Your task to perform on an android device: search for starred emails in the gmail app Image 0: 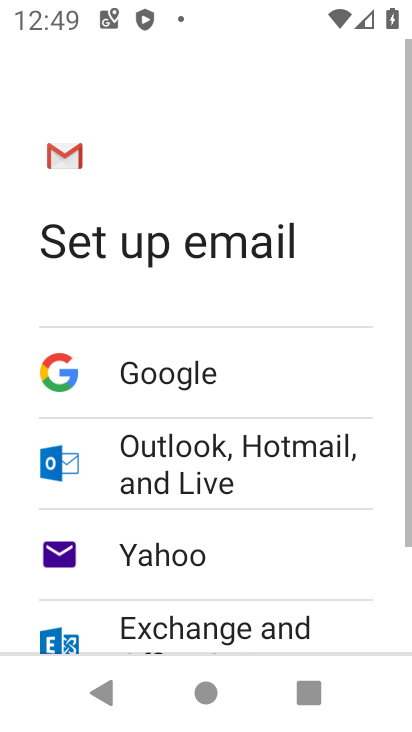
Step 0: press home button
Your task to perform on an android device: search for starred emails in the gmail app Image 1: 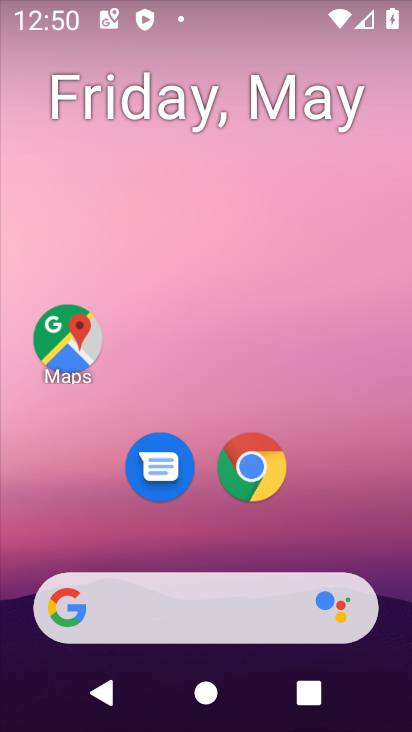
Step 1: click (163, 487)
Your task to perform on an android device: search for starred emails in the gmail app Image 2: 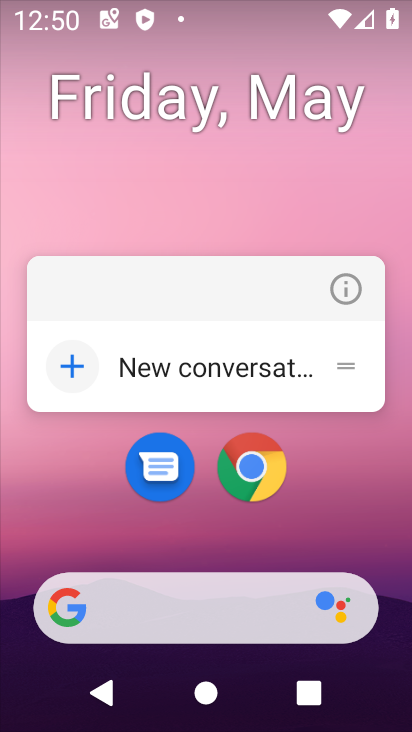
Step 2: click (359, 549)
Your task to perform on an android device: search for starred emails in the gmail app Image 3: 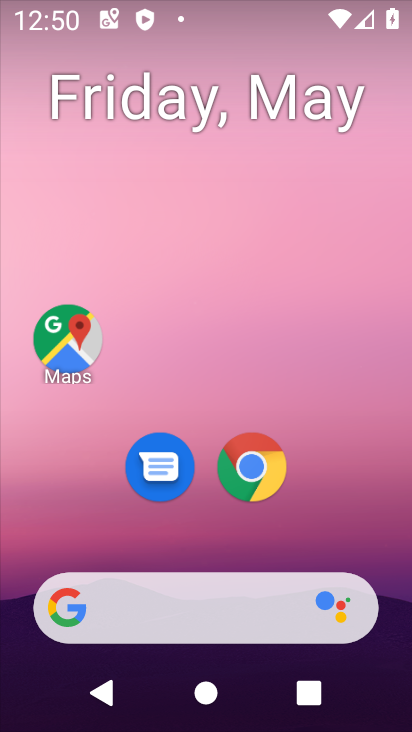
Step 3: click (279, 500)
Your task to perform on an android device: search for starred emails in the gmail app Image 4: 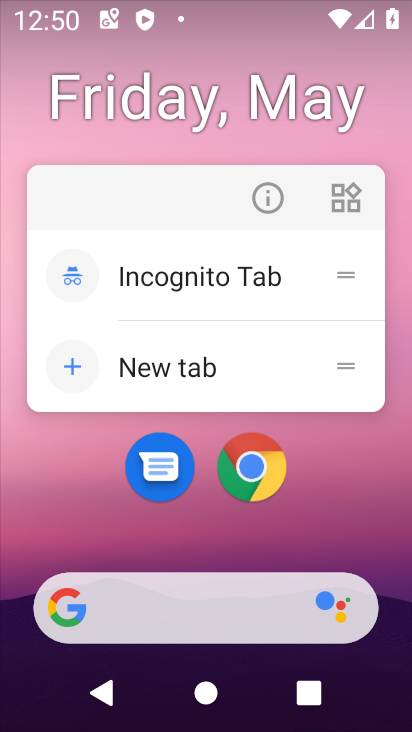
Step 4: click (246, 475)
Your task to perform on an android device: search for starred emails in the gmail app Image 5: 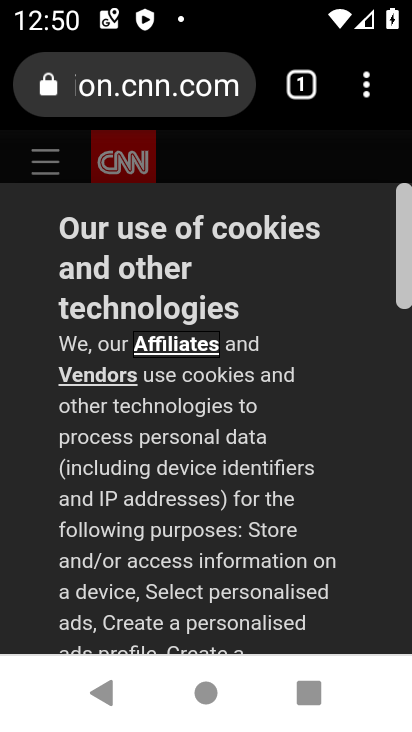
Step 5: drag from (376, 97) to (221, 507)
Your task to perform on an android device: search for starred emails in the gmail app Image 6: 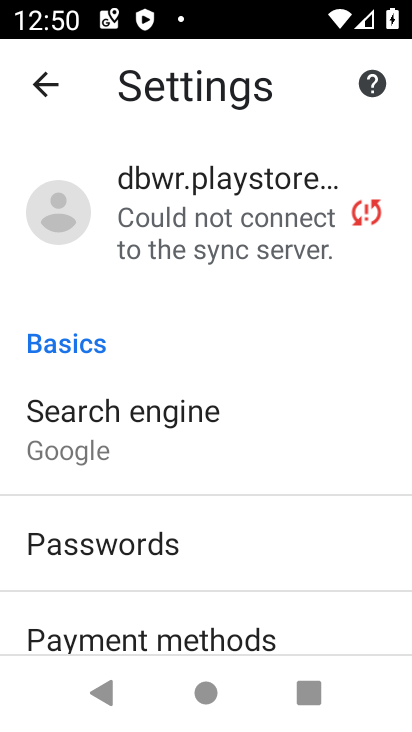
Step 6: drag from (267, 595) to (235, 205)
Your task to perform on an android device: search for starred emails in the gmail app Image 7: 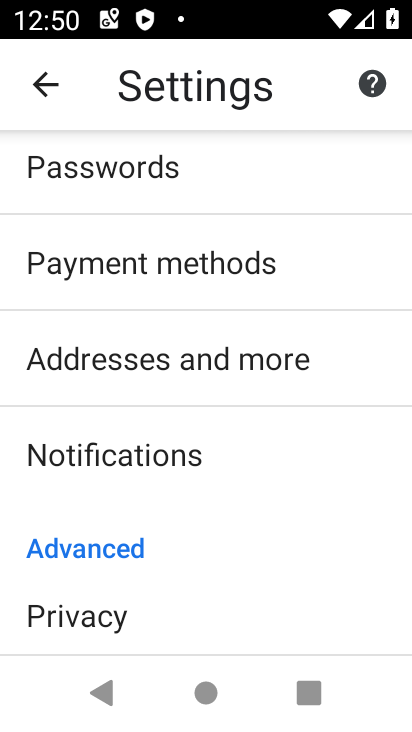
Step 7: drag from (357, 597) to (344, 262)
Your task to perform on an android device: search for starred emails in the gmail app Image 8: 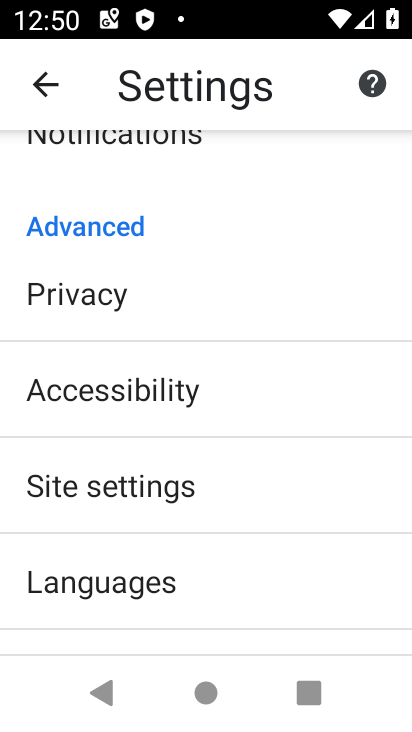
Step 8: press home button
Your task to perform on an android device: search for starred emails in the gmail app Image 9: 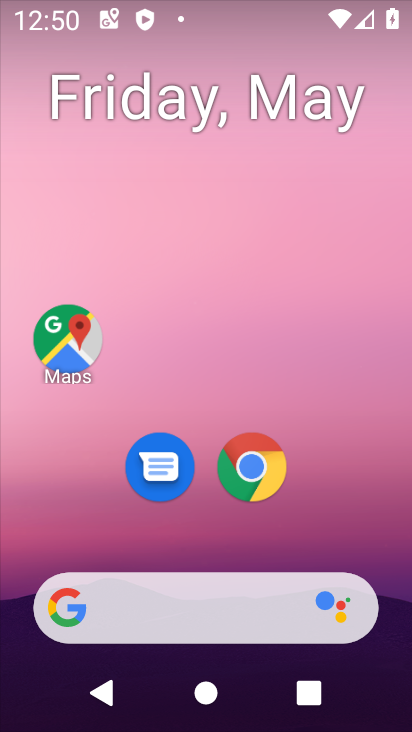
Step 9: drag from (337, 527) to (282, 102)
Your task to perform on an android device: search for starred emails in the gmail app Image 10: 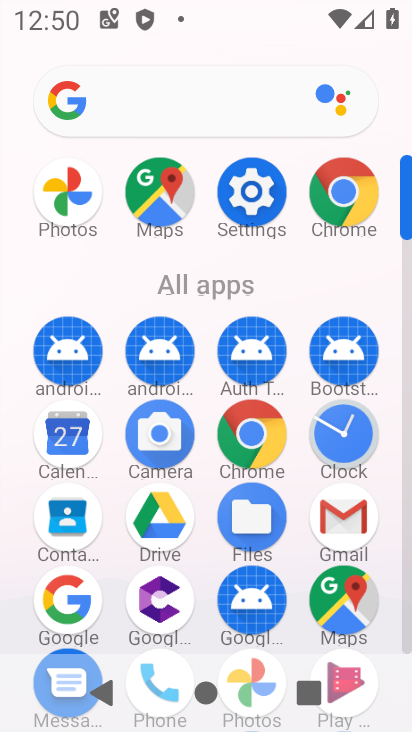
Step 10: click (336, 543)
Your task to perform on an android device: search for starred emails in the gmail app Image 11: 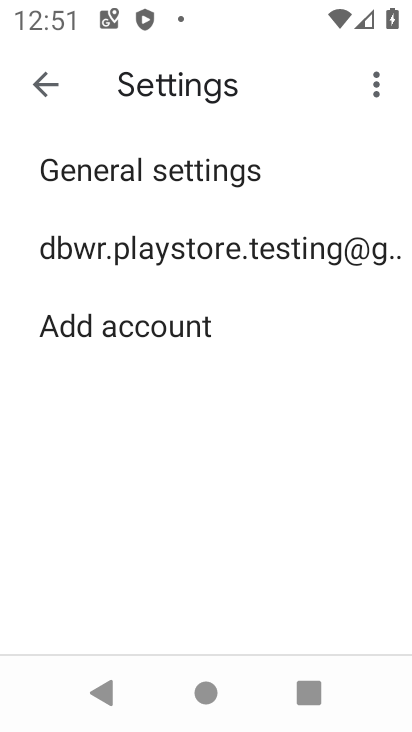
Step 11: click (42, 71)
Your task to perform on an android device: search for starred emails in the gmail app Image 12: 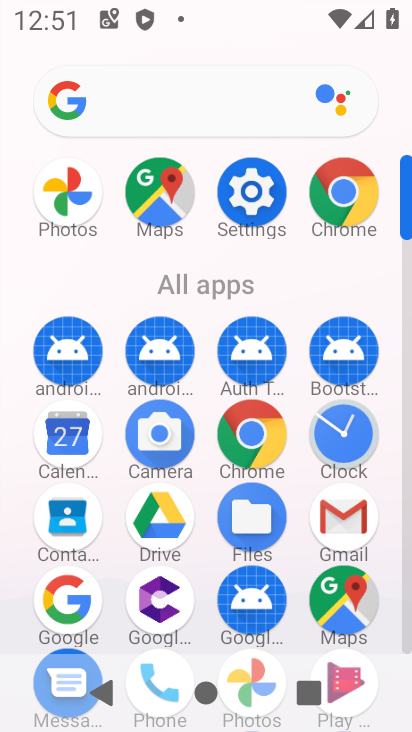
Step 12: click (335, 487)
Your task to perform on an android device: search for starred emails in the gmail app Image 13: 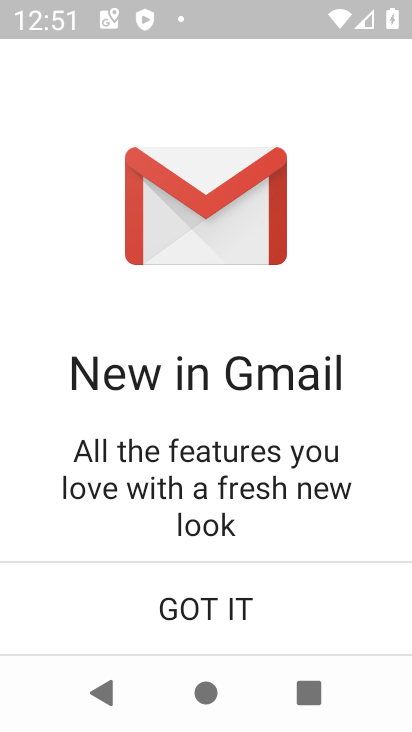
Step 13: click (212, 621)
Your task to perform on an android device: search for starred emails in the gmail app Image 14: 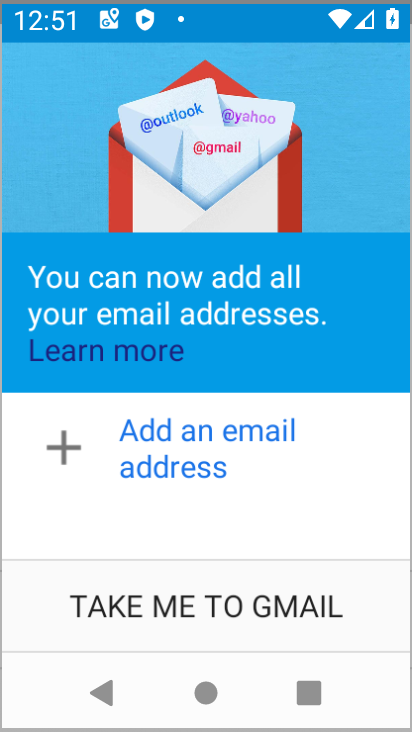
Step 14: click (361, 595)
Your task to perform on an android device: search for starred emails in the gmail app Image 15: 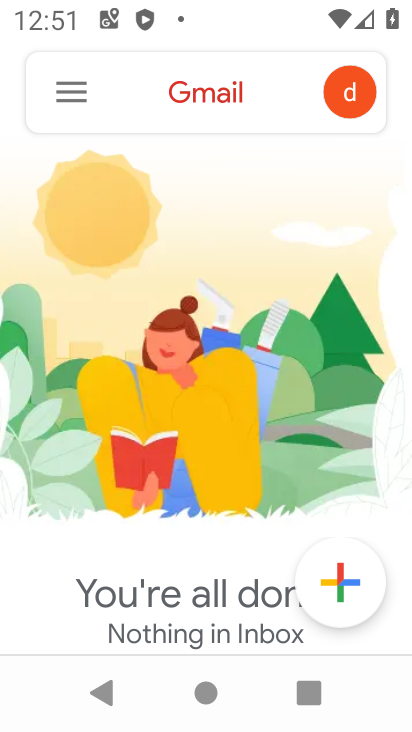
Step 15: click (86, 94)
Your task to perform on an android device: search for starred emails in the gmail app Image 16: 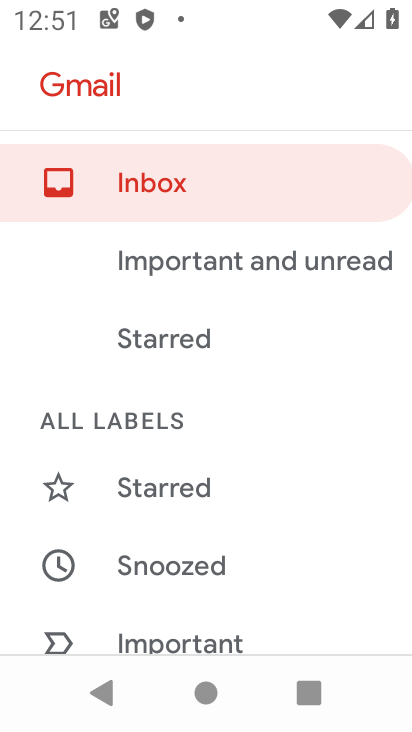
Step 16: drag from (205, 613) to (4, 458)
Your task to perform on an android device: search for starred emails in the gmail app Image 17: 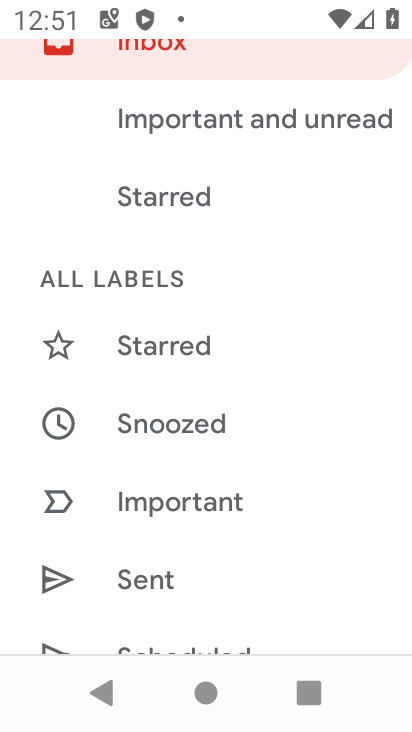
Step 17: drag from (58, 423) to (101, 656)
Your task to perform on an android device: search for starred emails in the gmail app Image 18: 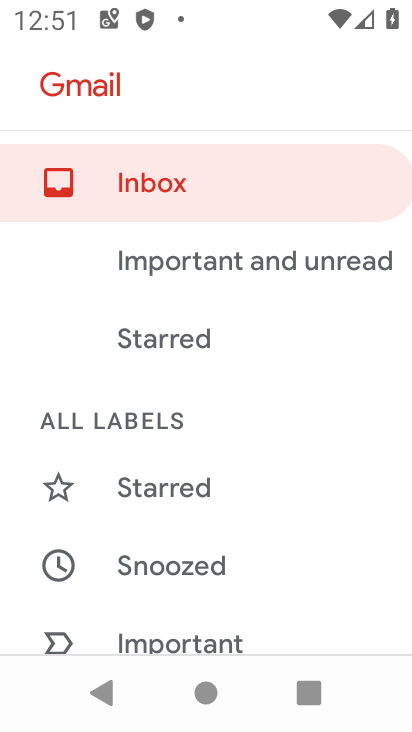
Step 18: click (58, 474)
Your task to perform on an android device: search for starred emails in the gmail app Image 19: 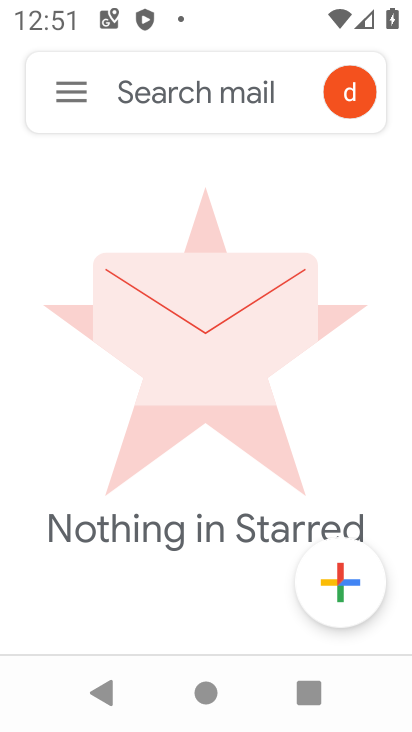
Step 19: task complete